Your task to perform on an android device: What's the weather going to be this weekend? Image 0: 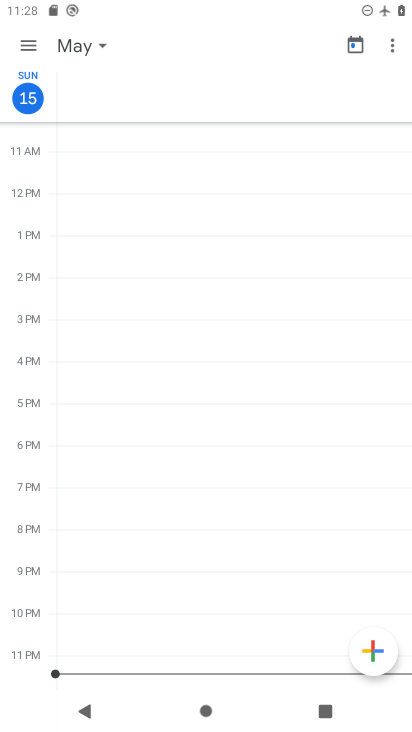
Step 0: press home button
Your task to perform on an android device: What's the weather going to be this weekend? Image 1: 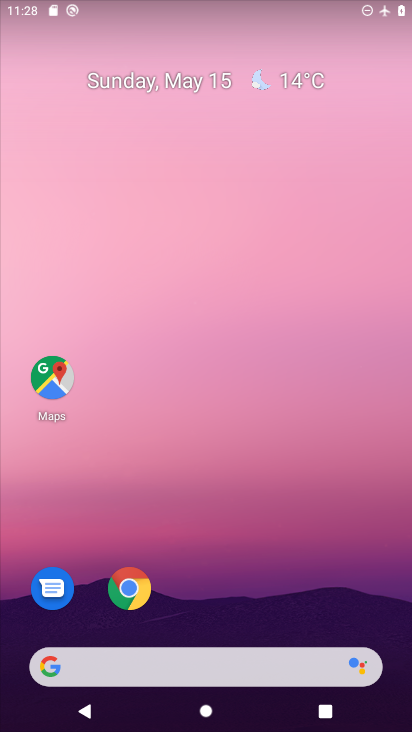
Step 1: click (291, 80)
Your task to perform on an android device: What's the weather going to be this weekend? Image 2: 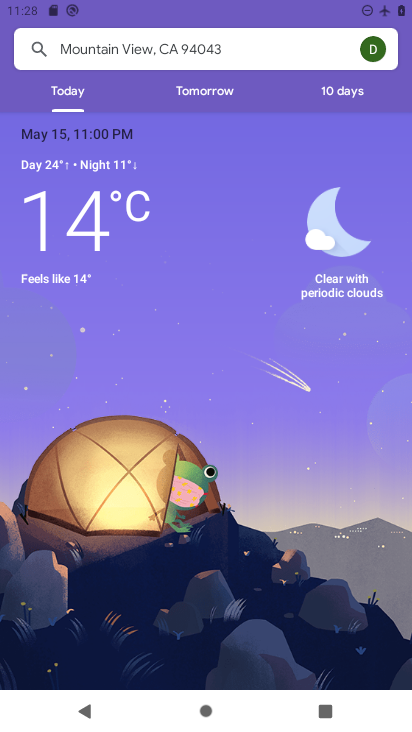
Step 2: click (345, 96)
Your task to perform on an android device: What's the weather going to be this weekend? Image 3: 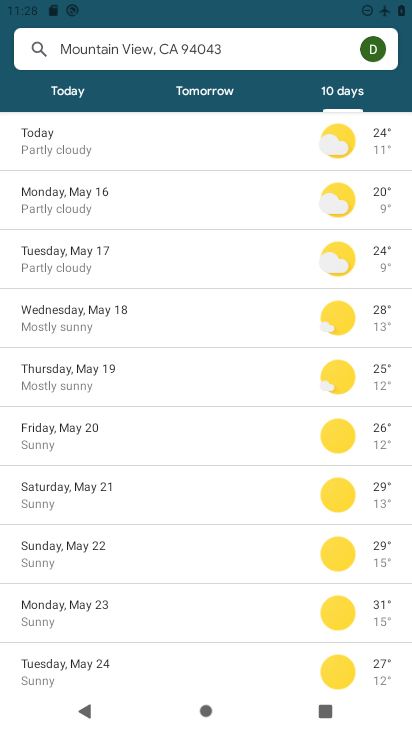
Step 3: task complete